Your task to perform on an android device: install app "LinkedIn" Image 0: 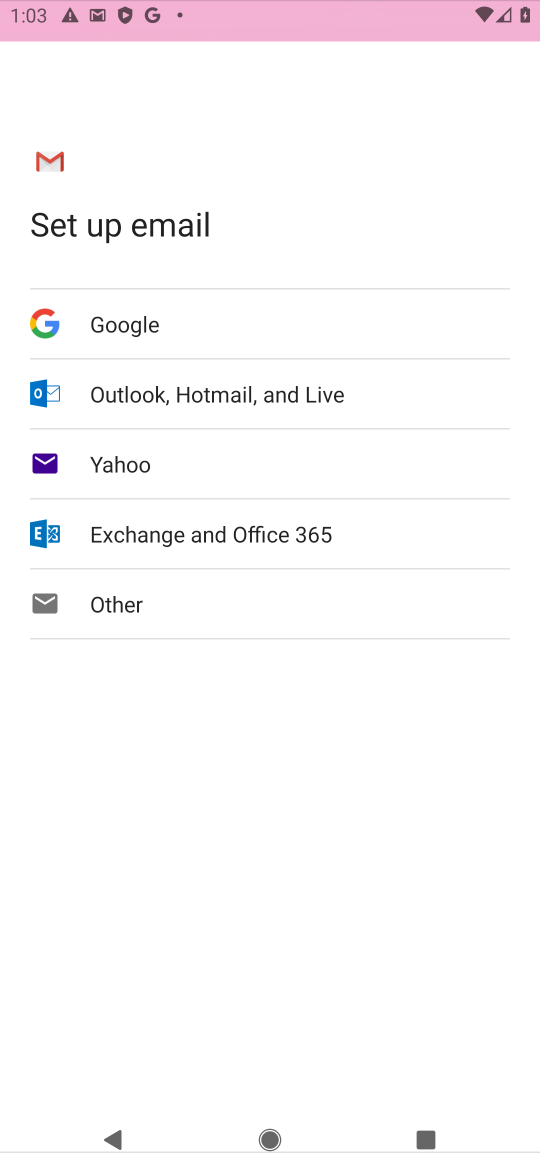
Step 0: press home button
Your task to perform on an android device: install app "LinkedIn" Image 1: 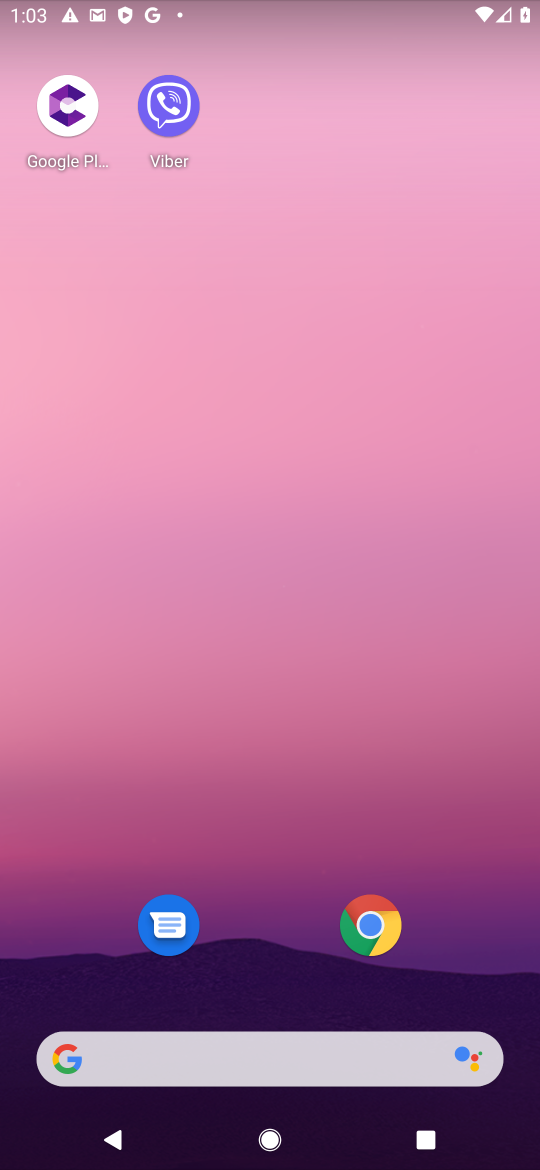
Step 1: drag from (384, 962) to (376, 6)
Your task to perform on an android device: install app "LinkedIn" Image 2: 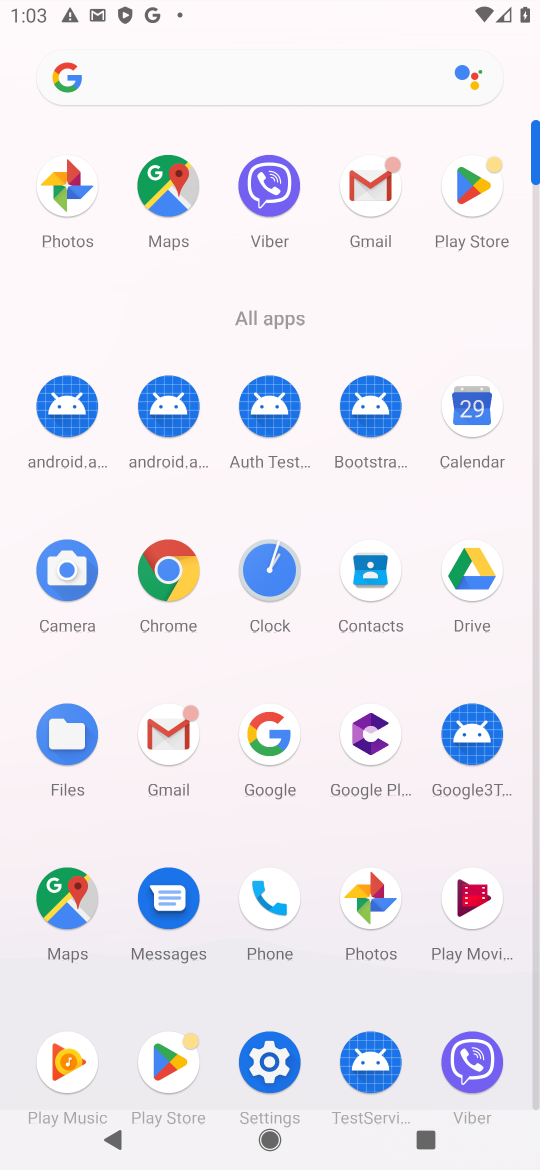
Step 2: click (472, 211)
Your task to perform on an android device: install app "LinkedIn" Image 3: 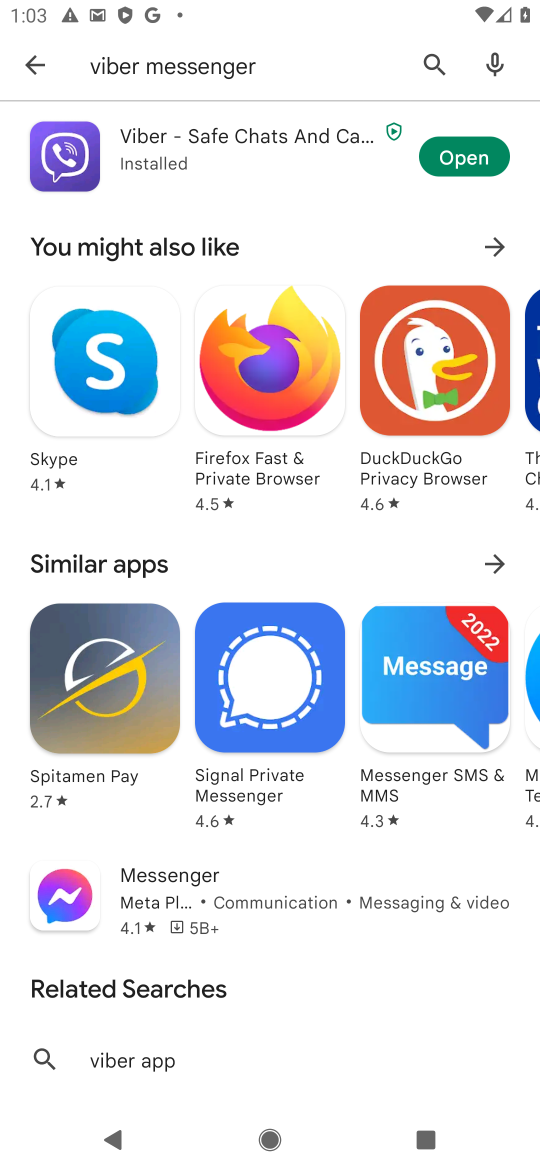
Step 3: click (438, 62)
Your task to perform on an android device: install app "LinkedIn" Image 4: 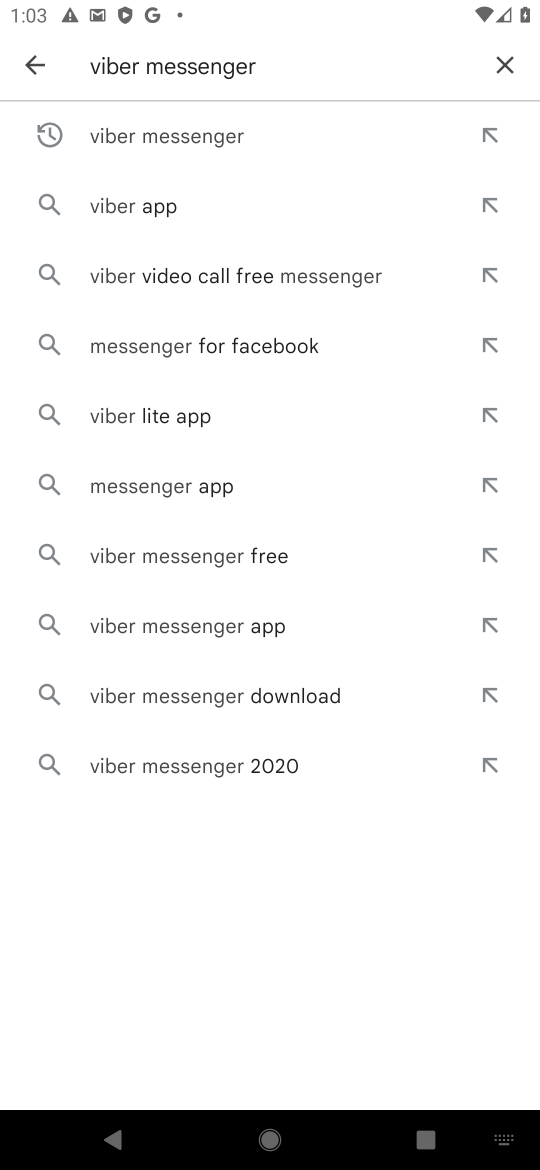
Step 4: click (501, 54)
Your task to perform on an android device: install app "LinkedIn" Image 5: 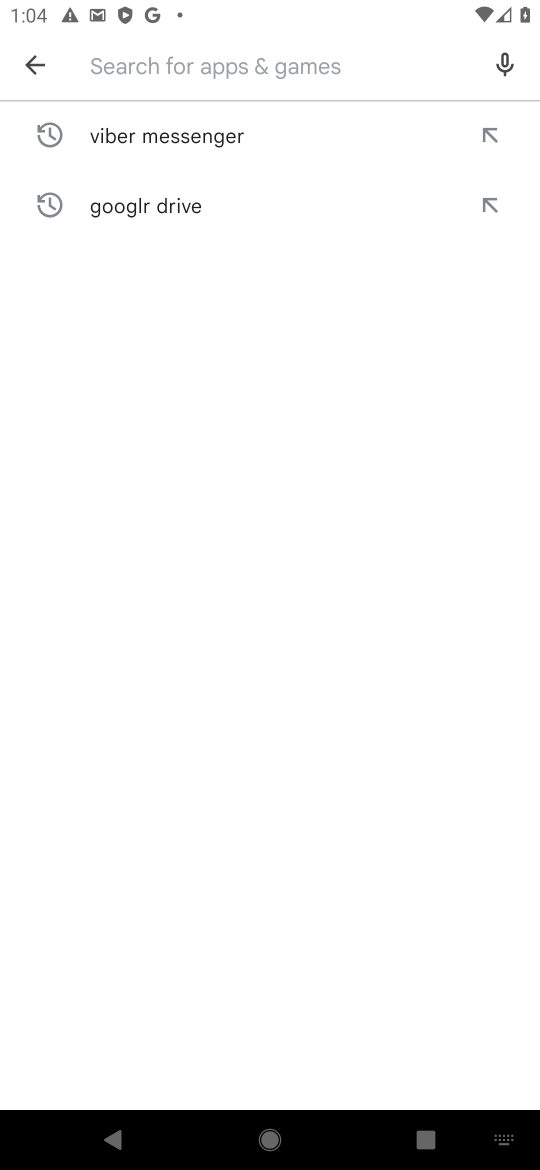
Step 5: type "linkedin"
Your task to perform on an android device: install app "LinkedIn" Image 6: 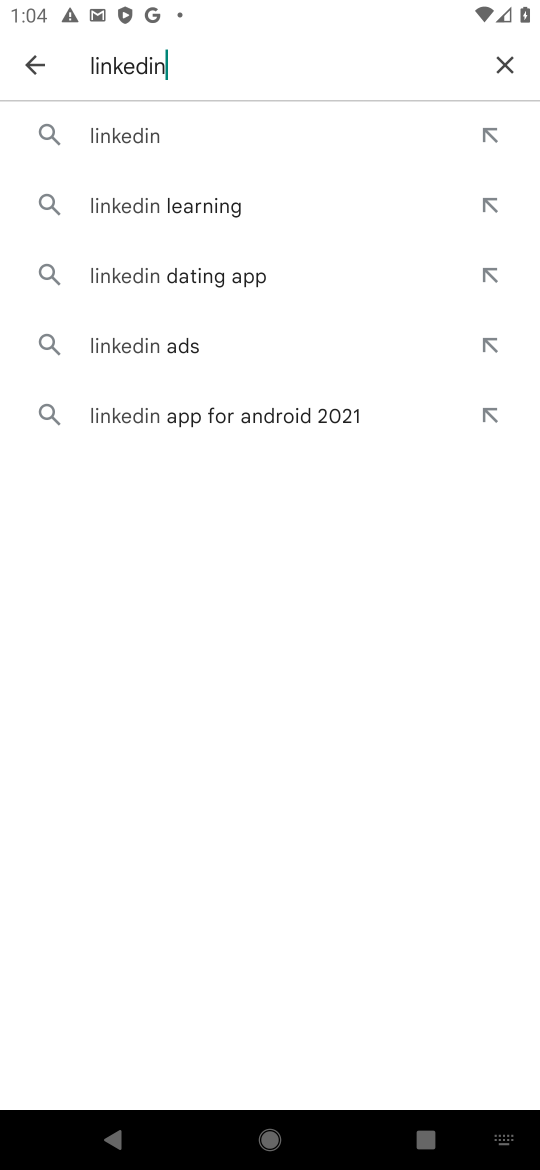
Step 6: click (160, 122)
Your task to perform on an android device: install app "LinkedIn" Image 7: 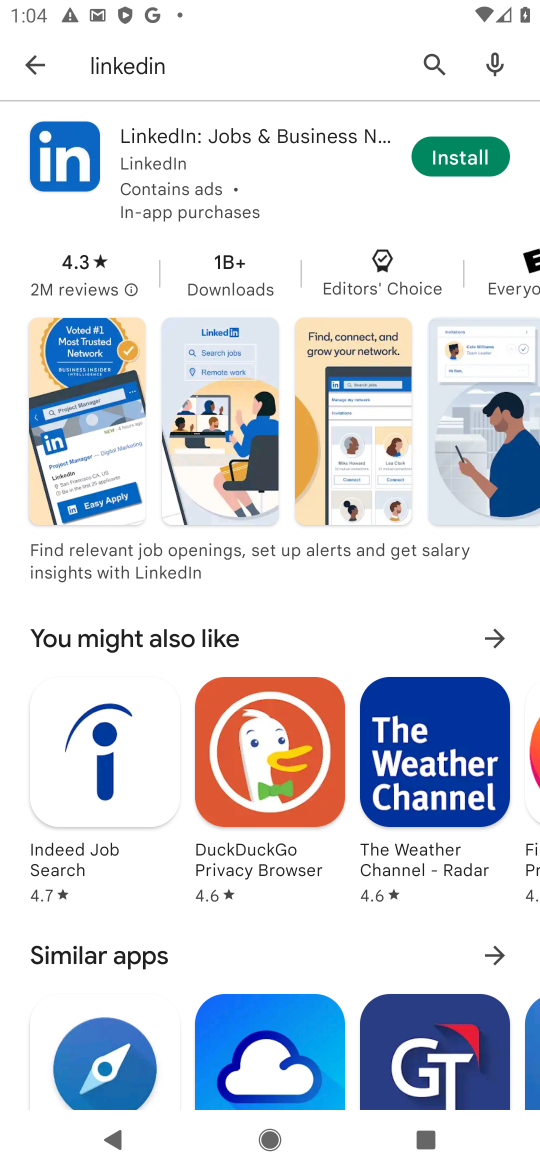
Step 7: click (455, 151)
Your task to perform on an android device: install app "LinkedIn" Image 8: 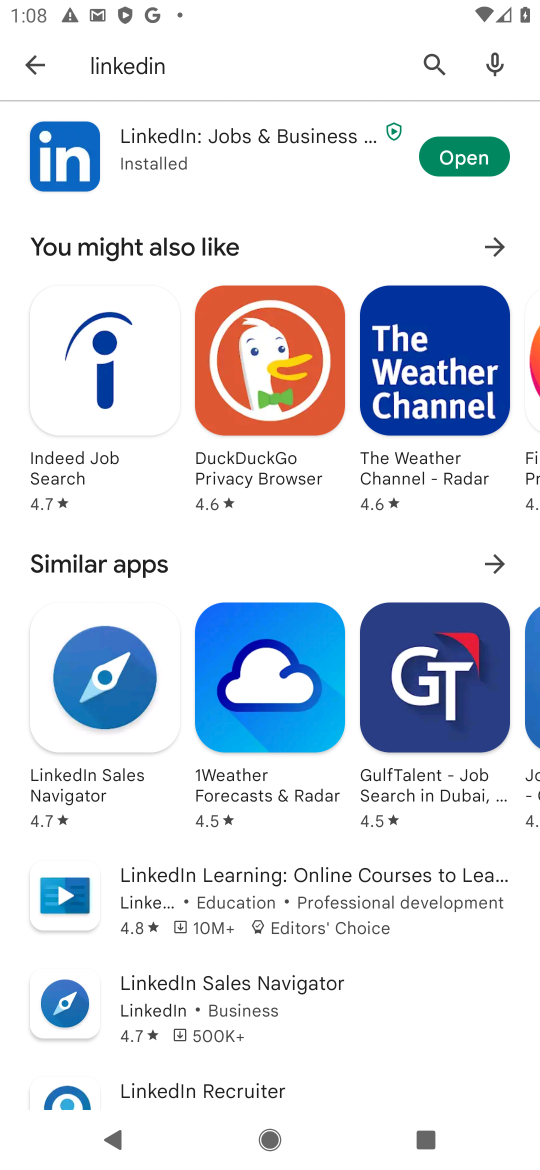
Step 8: task complete